Your task to perform on an android device: Open CNN.com Image 0: 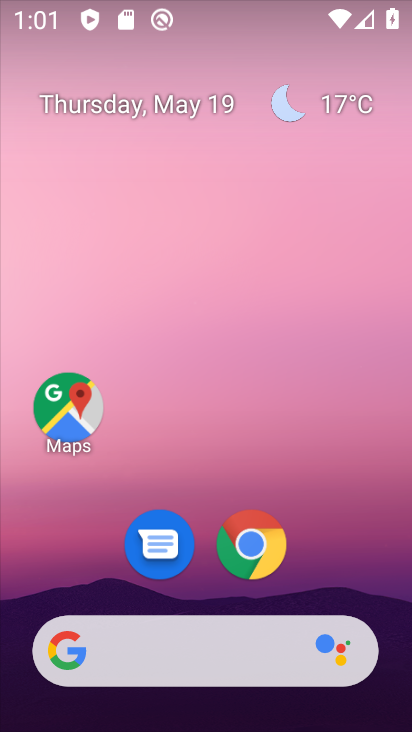
Step 0: click (259, 546)
Your task to perform on an android device: Open CNN.com Image 1: 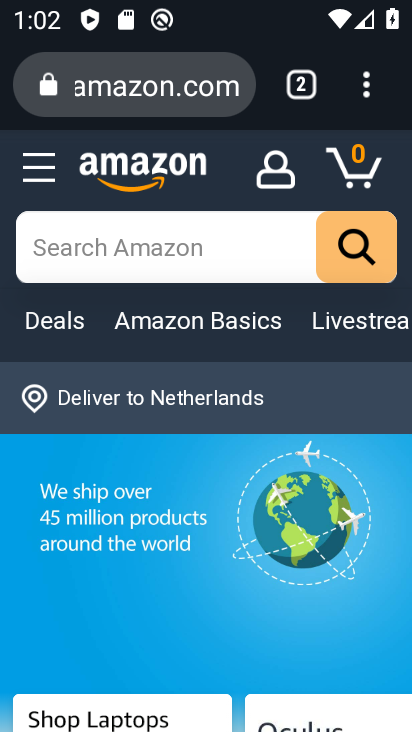
Step 1: click (368, 93)
Your task to perform on an android device: Open CNN.com Image 2: 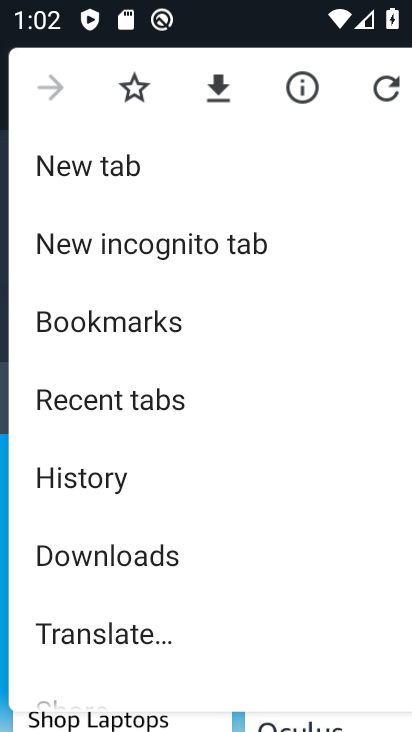
Step 2: click (99, 158)
Your task to perform on an android device: Open CNN.com Image 3: 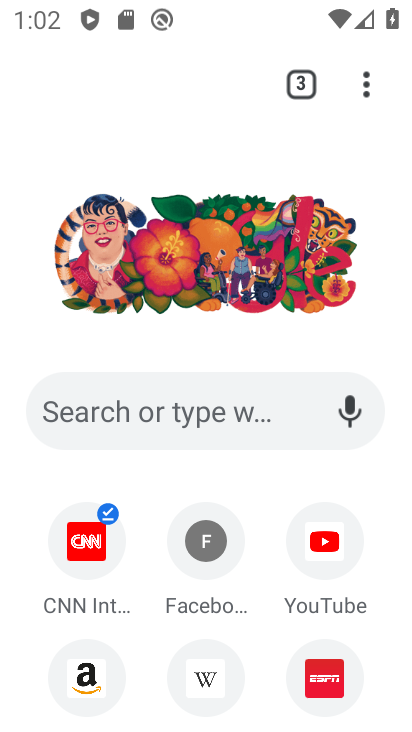
Step 3: click (178, 410)
Your task to perform on an android device: Open CNN.com Image 4: 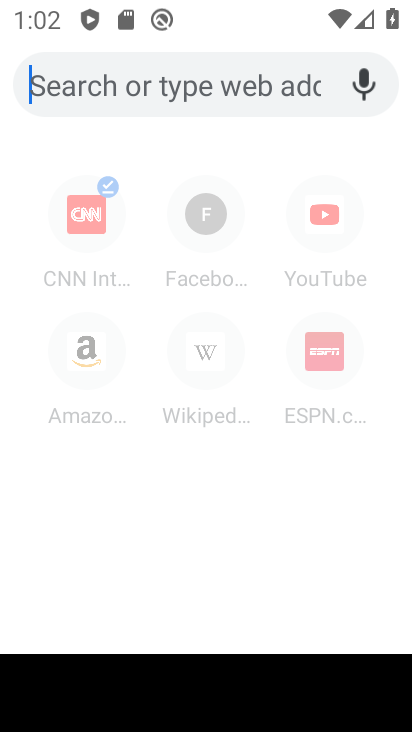
Step 4: type "CNN.com"
Your task to perform on an android device: Open CNN.com Image 5: 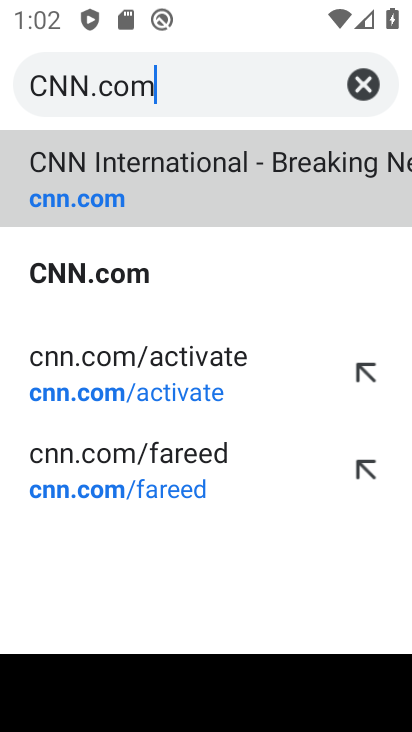
Step 5: click (114, 157)
Your task to perform on an android device: Open CNN.com Image 6: 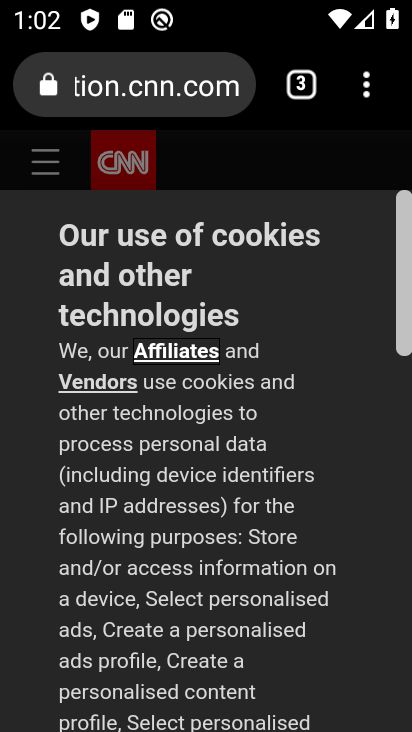
Step 6: task complete